Your task to perform on an android device: search for starred emails in the gmail app Image 0: 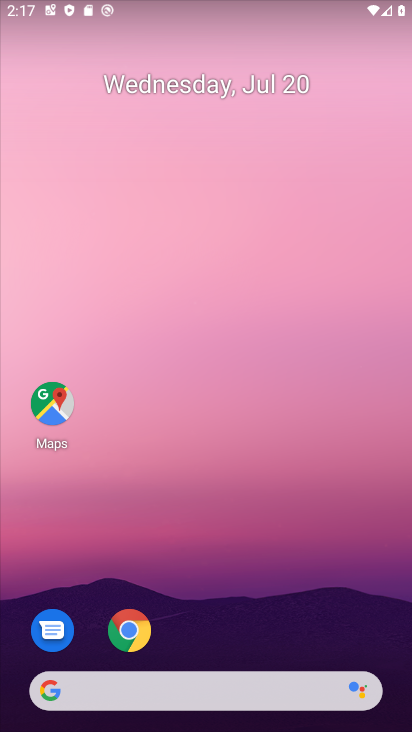
Step 0: drag from (389, 600) to (395, 73)
Your task to perform on an android device: search for starred emails in the gmail app Image 1: 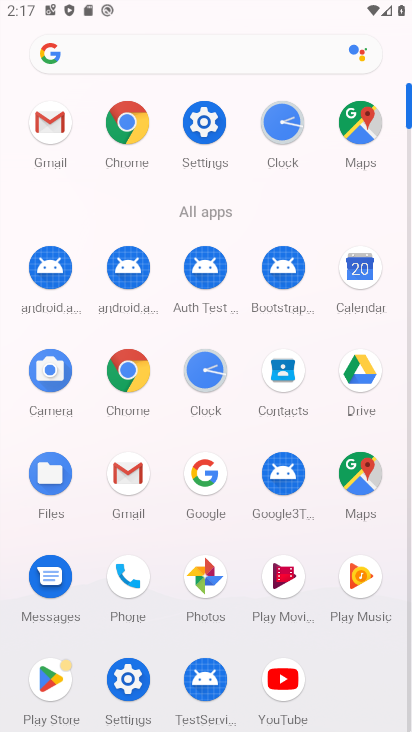
Step 1: click (133, 486)
Your task to perform on an android device: search for starred emails in the gmail app Image 2: 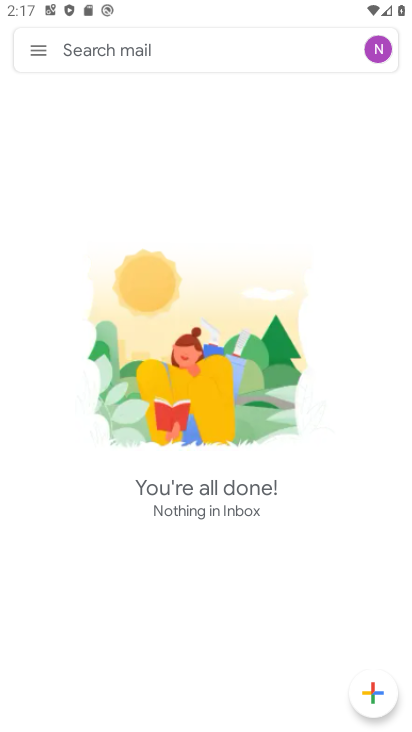
Step 2: click (44, 51)
Your task to perform on an android device: search for starred emails in the gmail app Image 3: 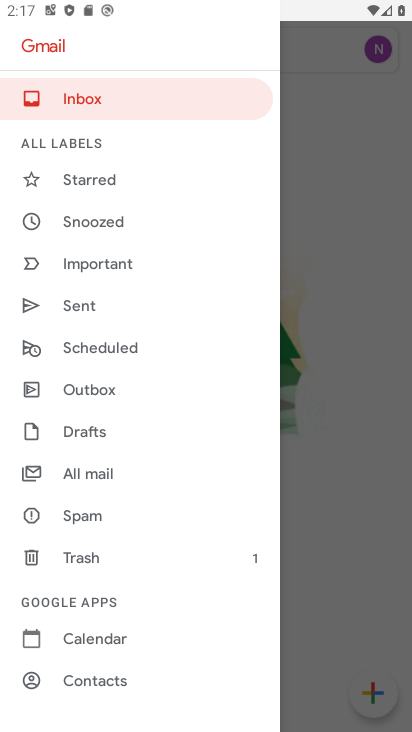
Step 3: drag from (199, 357) to (199, 276)
Your task to perform on an android device: search for starred emails in the gmail app Image 4: 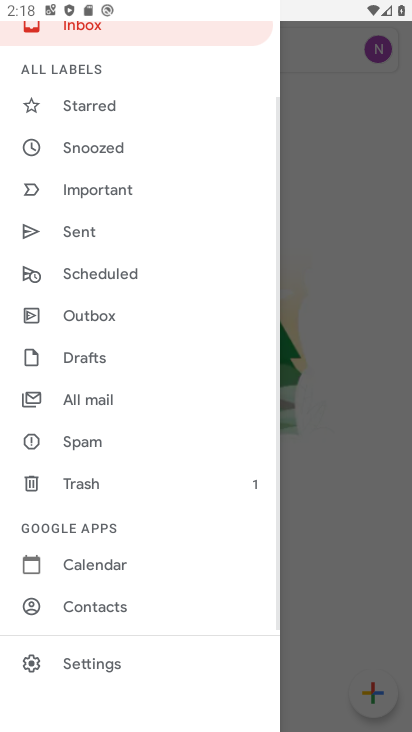
Step 4: drag from (189, 409) to (221, 269)
Your task to perform on an android device: search for starred emails in the gmail app Image 5: 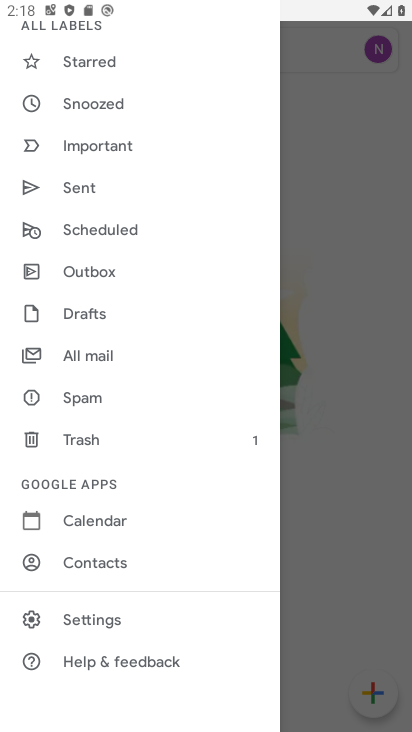
Step 5: drag from (221, 269) to (221, 316)
Your task to perform on an android device: search for starred emails in the gmail app Image 6: 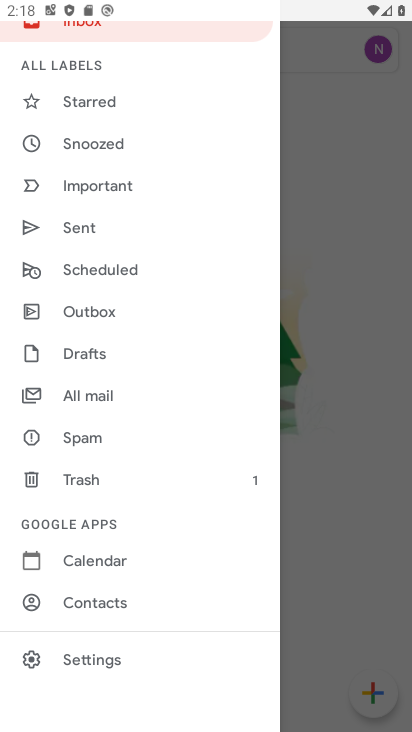
Step 6: drag from (224, 207) to (213, 318)
Your task to perform on an android device: search for starred emails in the gmail app Image 7: 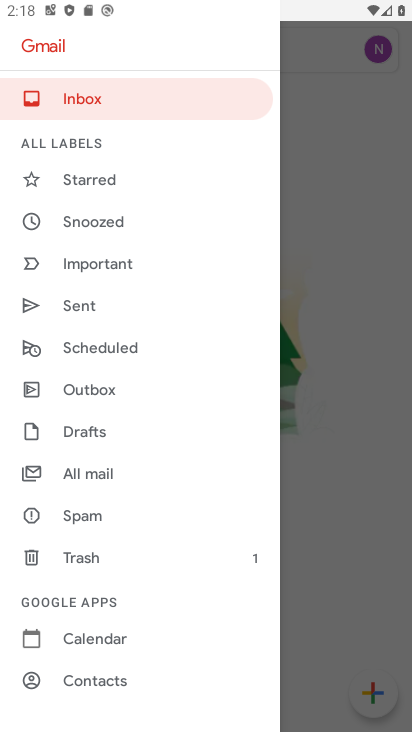
Step 7: drag from (206, 178) to (201, 305)
Your task to perform on an android device: search for starred emails in the gmail app Image 8: 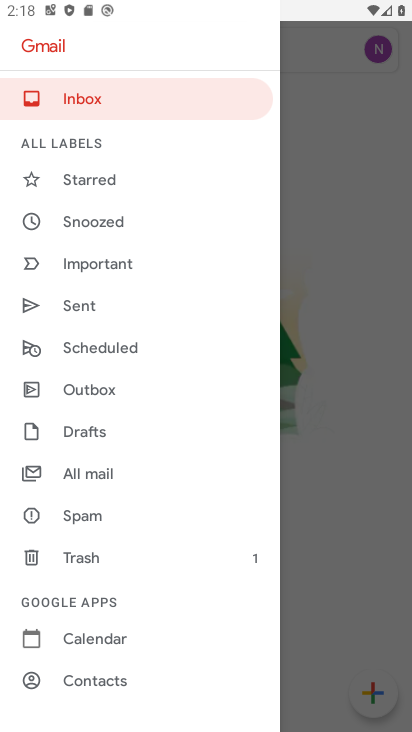
Step 8: click (131, 168)
Your task to perform on an android device: search for starred emails in the gmail app Image 9: 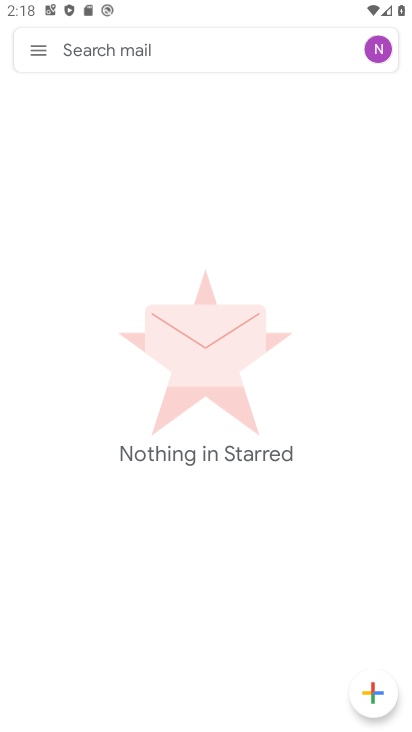
Step 9: task complete